Your task to perform on an android device: See recent photos Image 0: 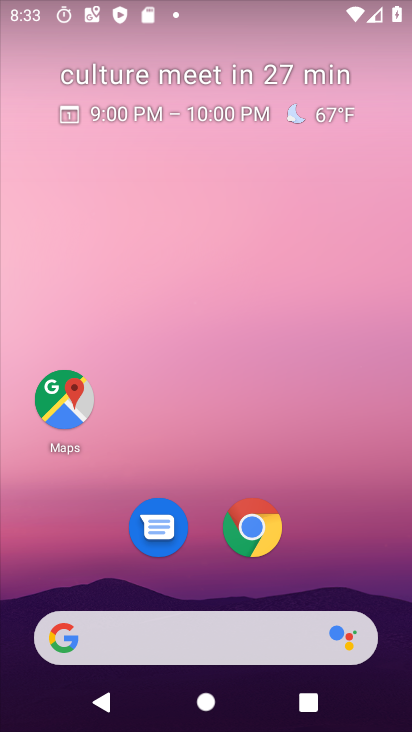
Step 0: drag from (238, 718) to (222, 192)
Your task to perform on an android device: See recent photos Image 1: 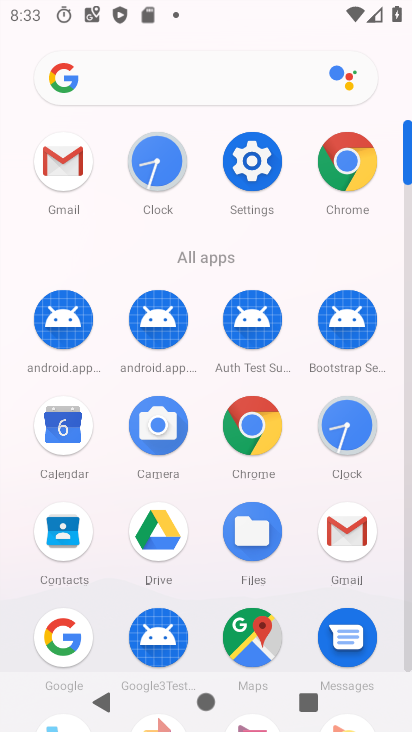
Step 1: drag from (221, 609) to (217, 297)
Your task to perform on an android device: See recent photos Image 2: 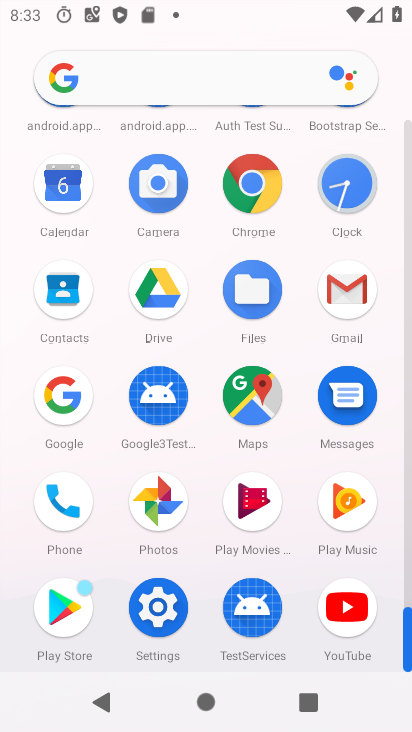
Step 2: drag from (186, 634) to (202, 305)
Your task to perform on an android device: See recent photos Image 3: 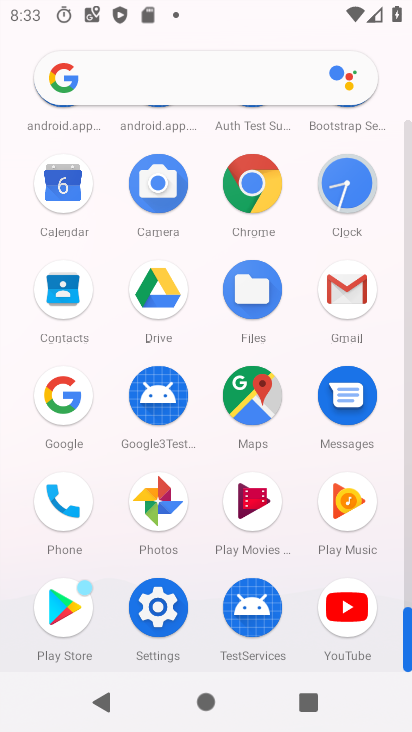
Step 3: click (154, 499)
Your task to perform on an android device: See recent photos Image 4: 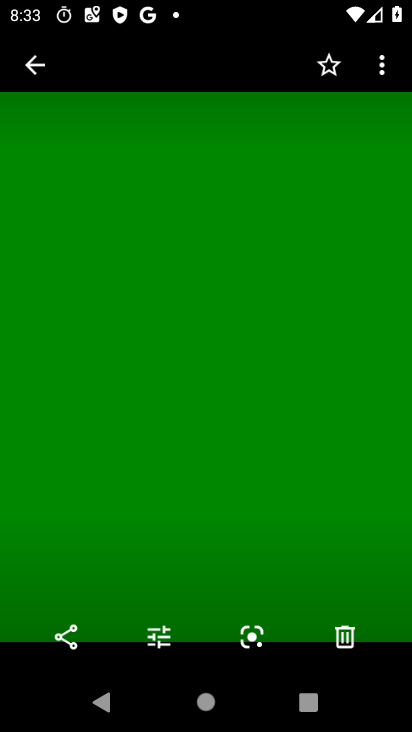
Step 4: task complete